Your task to perform on an android device: find photos in the google photos app Image 0: 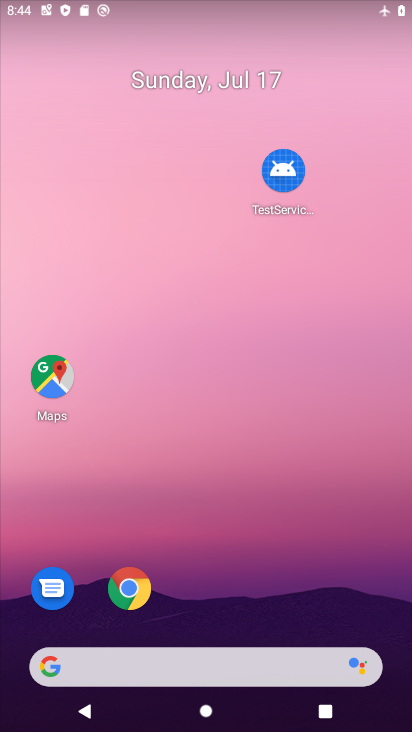
Step 0: drag from (203, 621) to (198, 105)
Your task to perform on an android device: find photos in the google photos app Image 1: 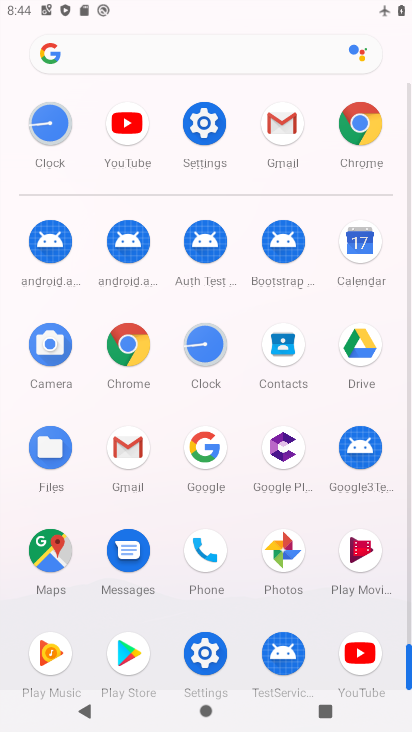
Step 1: drag from (247, 519) to (280, 178)
Your task to perform on an android device: find photos in the google photos app Image 2: 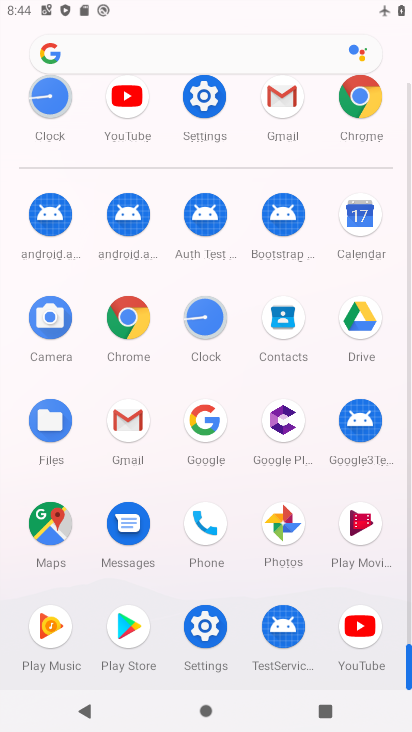
Step 2: click (285, 551)
Your task to perform on an android device: find photos in the google photos app Image 3: 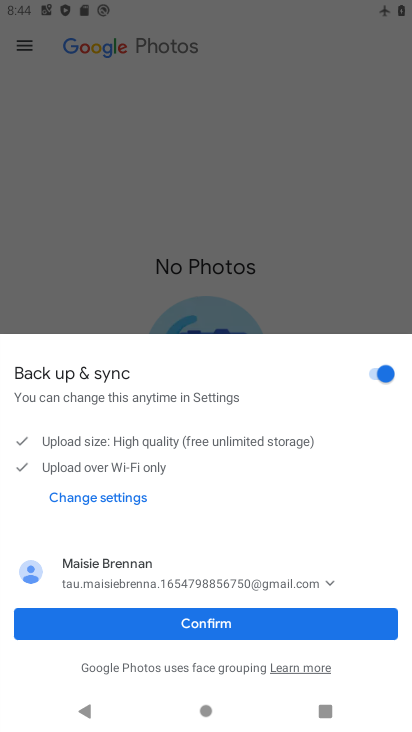
Step 3: click (232, 630)
Your task to perform on an android device: find photos in the google photos app Image 4: 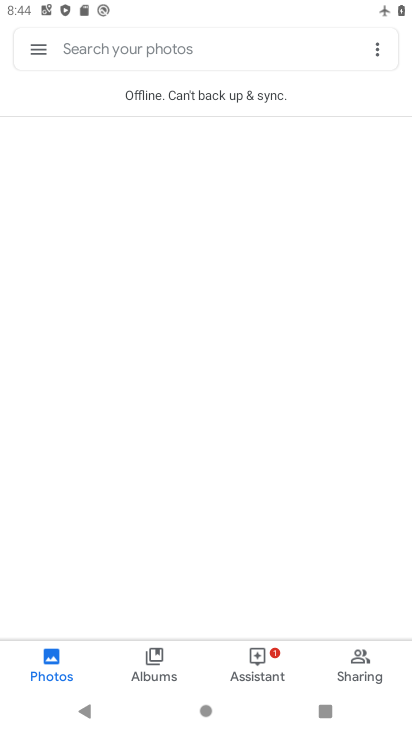
Step 4: task complete